Your task to perform on an android device: Go to calendar. Show me events next week Image 0: 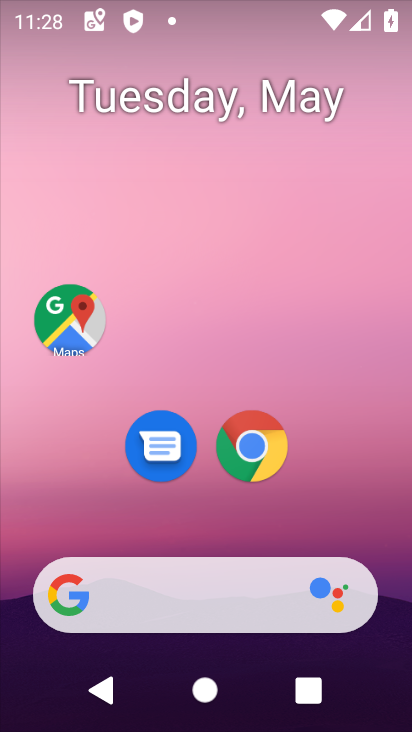
Step 0: drag from (254, 707) to (241, 97)
Your task to perform on an android device: Go to calendar. Show me events next week Image 1: 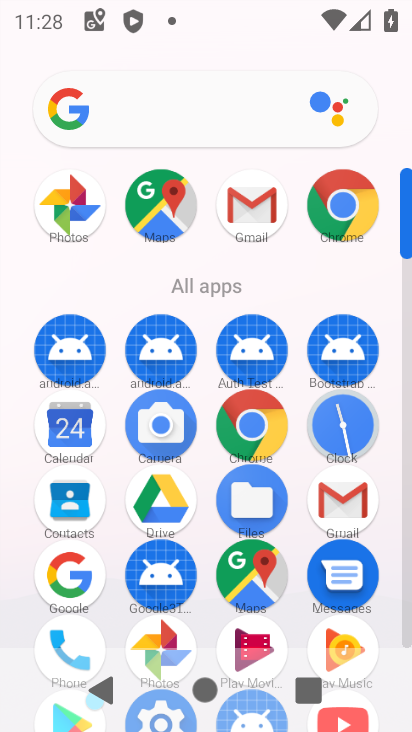
Step 1: drag from (199, 648) to (215, 213)
Your task to perform on an android device: Go to calendar. Show me events next week Image 2: 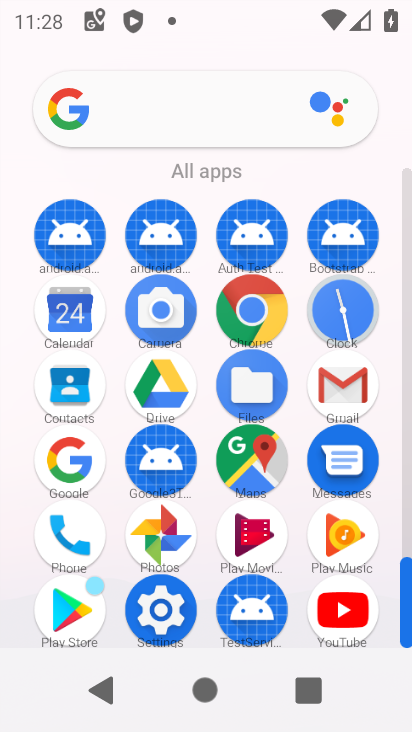
Step 2: click (76, 310)
Your task to perform on an android device: Go to calendar. Show me events next week Image 3: 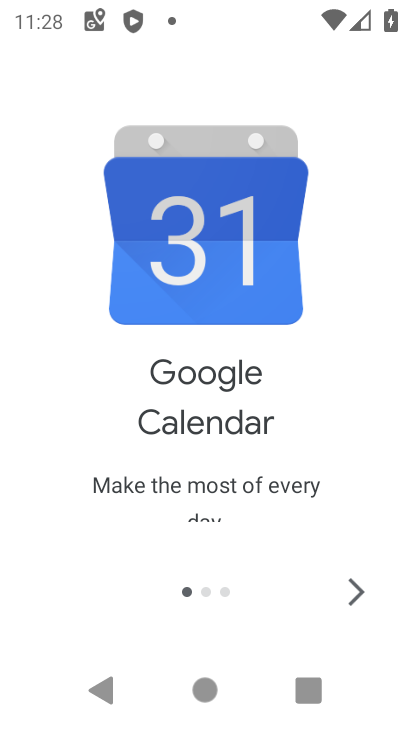
Step 3: click (354, 593)
Your task to perform on an android device: Go to calendar. Show me events next week Image 4: 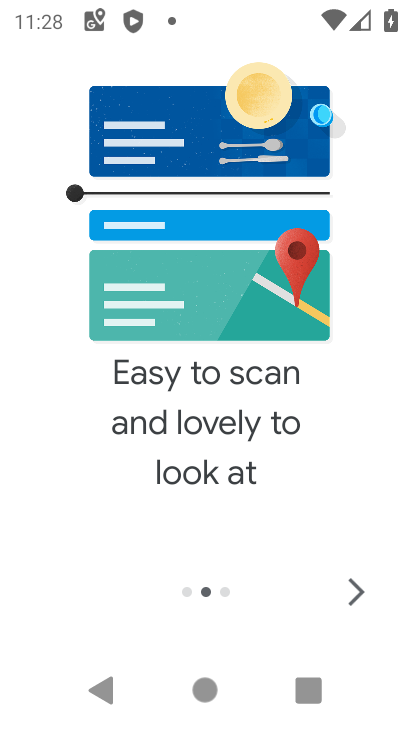
Step 4: click (354, 593)
Your task to perform on an android device: Go to calendar. Show me events next week Image 5: 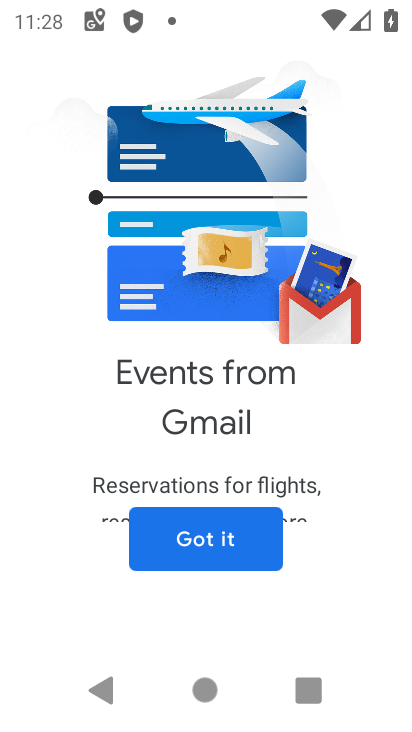
Step 5: click (230, 545)
Your task to perform on an android device: Go to calendar. Show me events next week Image 6: 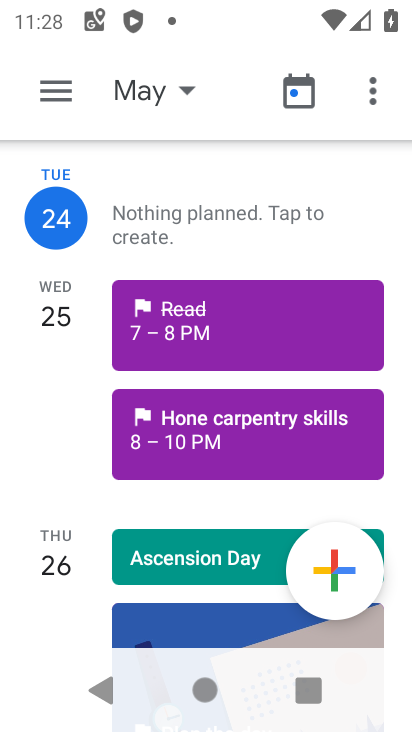
Step 6: click (54, 90)
Your task to perform on an android device: Go to calendar. Show me events next week Image 7: 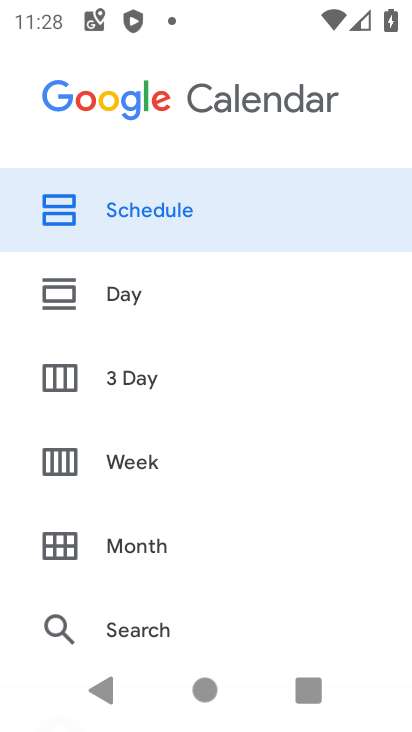
Step 7: drag from (185, 603) to (173, 259)
Your task to perform on an android device: Go to calendar. Show me events next week Image 8: 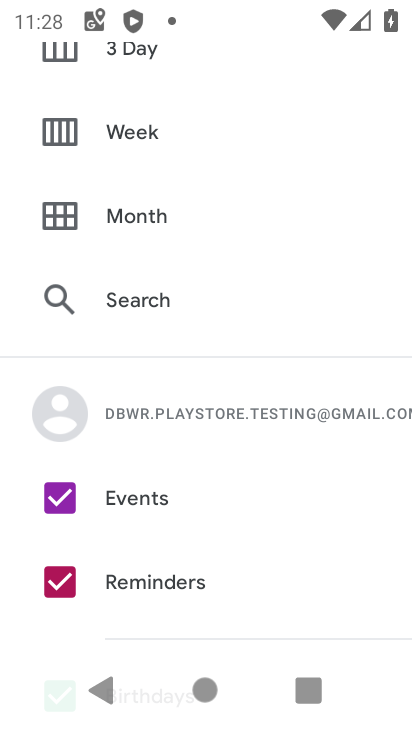
Step 8: drag from (138, 558) to (138, 322)
Your task to perform on an android device: Go to calendar. Show me events next week Image 9: 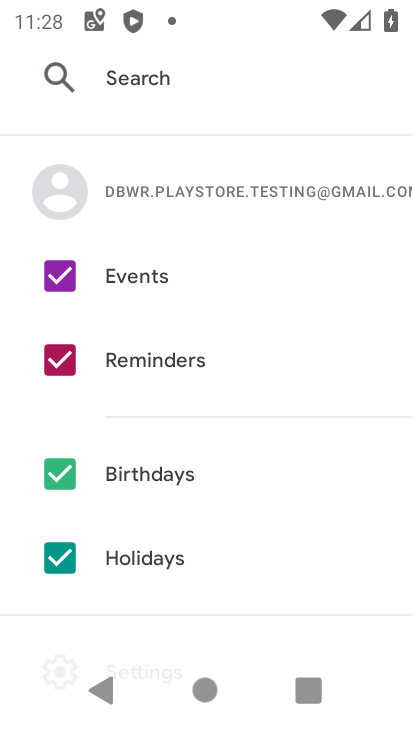
Step 9: click (72, 558)
Your task to perform on an android device: Go to calendar. Show me events next week Image 10: 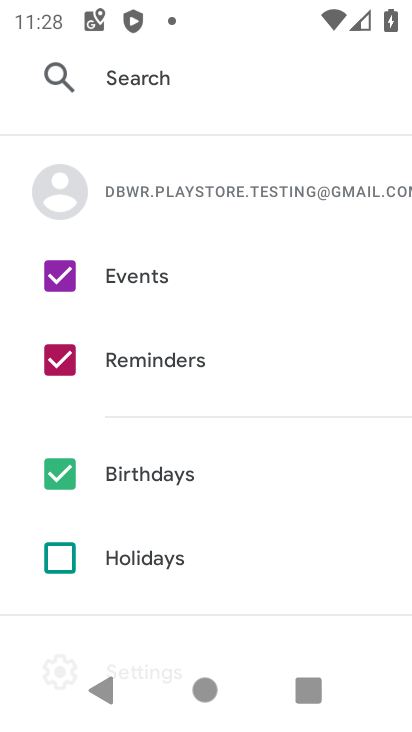
Step 10: click (65, 466)
Your task to perform on an android device: Go to calendar. Show me events next week Image 11: 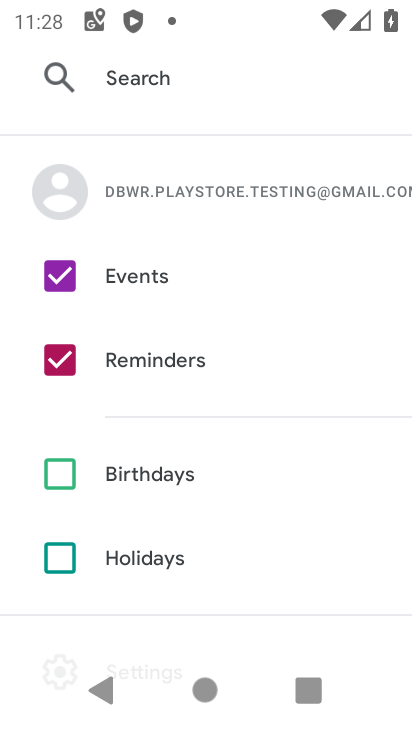
Step 11: click (65, 360)
Your task to perform on an android device: Go to calendar. Show me events next week Image 12: 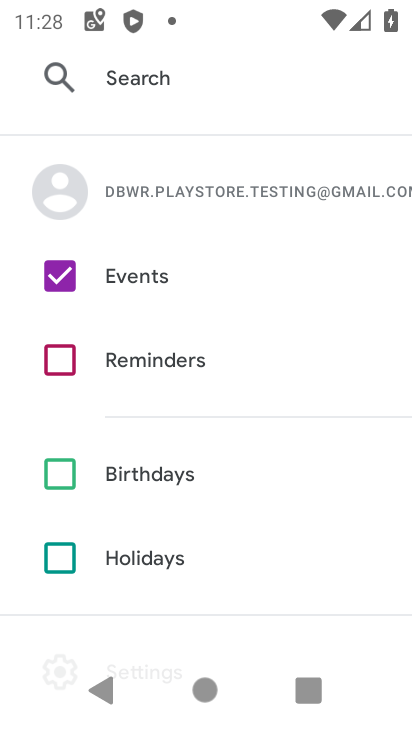
Step 12: drag from (267, 141) to (267, 455)
Your task to perform on an android device: Go to calendar. Show me events next week Image 13: 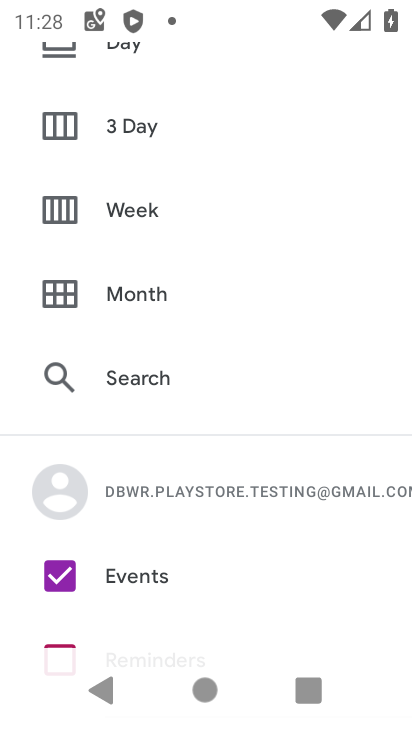
Step 13: drag from (221, 162) to (229, 409)
Your task to perform on an android device: Go to calendar. Show me events next week Image 14: 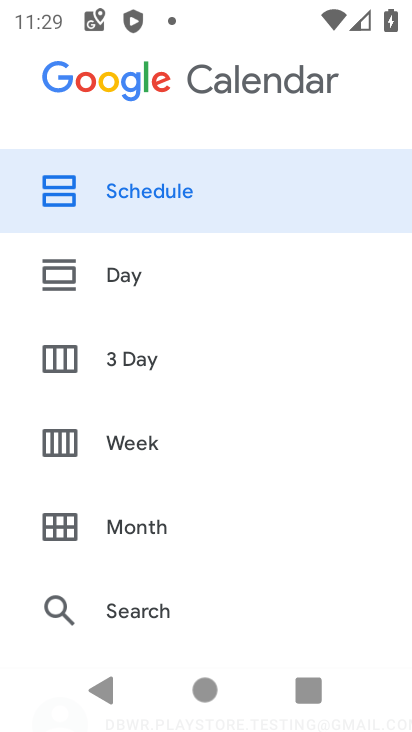
Step 14: click (140, 439)
Your task to perform on an android device: Go to calendar. Show me events next week Image 15: 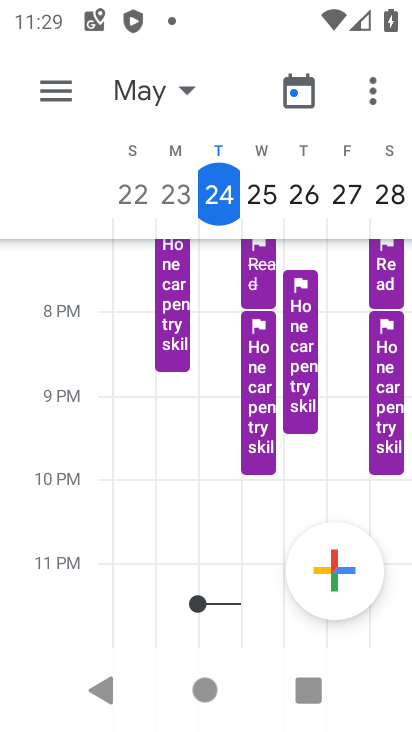
Step 15: drag from (327, 192) to (162, 187)
Your task to perform on an android device: Go to calendar. Show me events next week Image 16: 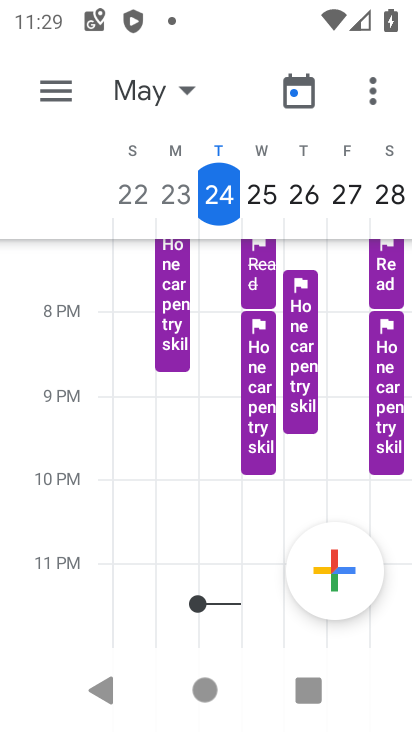
Step 16: drag from (390, 191) to (93, 201)
Your task to perform on an android device: Go to calendar. Show me events next week Image 17: 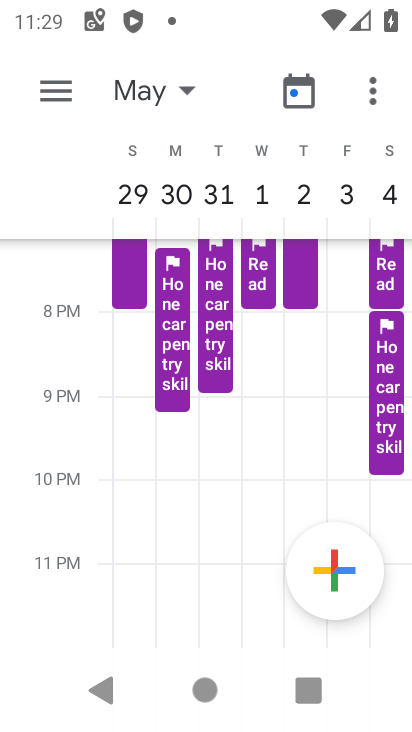
Step 17: click (171, 190)
Your task to perform on an android device: Go to calendar. Show me events next week Image 18: 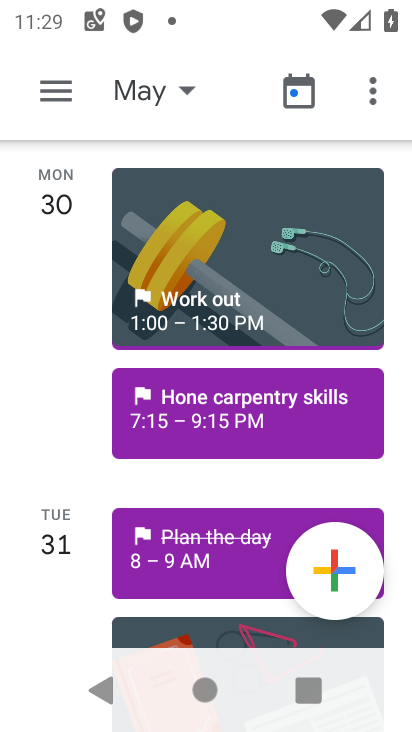
Step 18: click (52, 102)
Your task to perform on an android device: Go to calendar. Show me events next week Image 19: 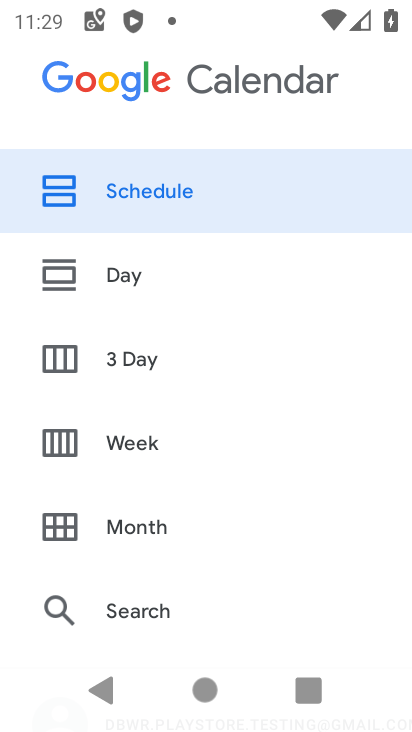
Step 19: click (126, 446)
Your task to perform on an android device: Go to calendar. Show me events next week Image 20: 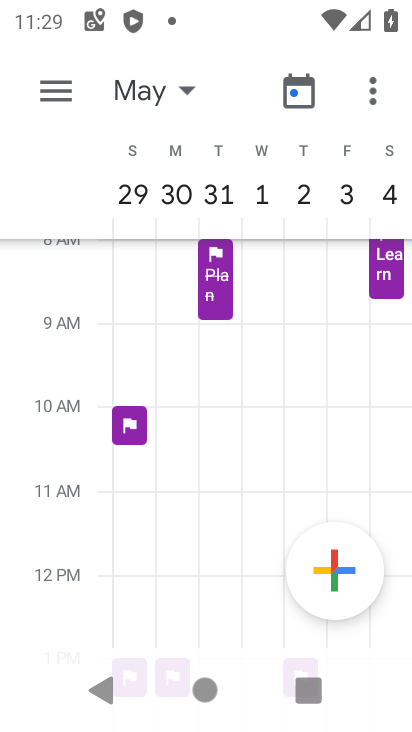
Step 20: task complete